Your task to perform on an android device: open device folders in google photos Image 0: 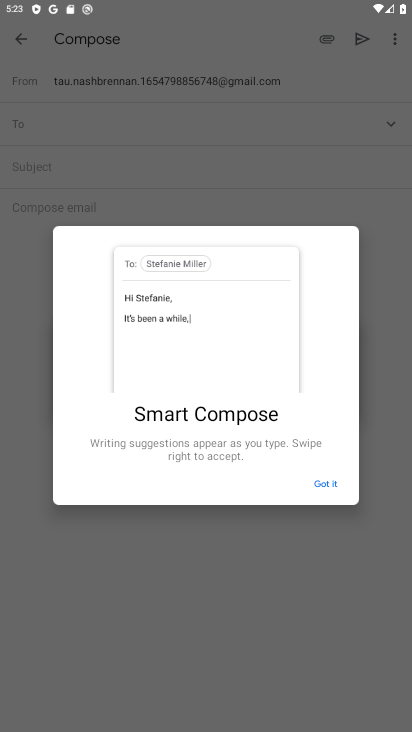
Step 0: press home button
Your task to perform on an android device: open device folders in google photos Image 1: 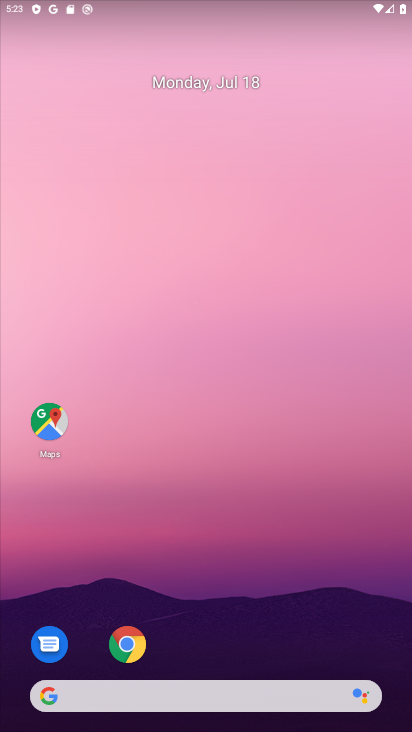
Step 1: drag from (287, 672) to (318, 213)
Your task to perform on an android device: open device folders in google photos Image 2: 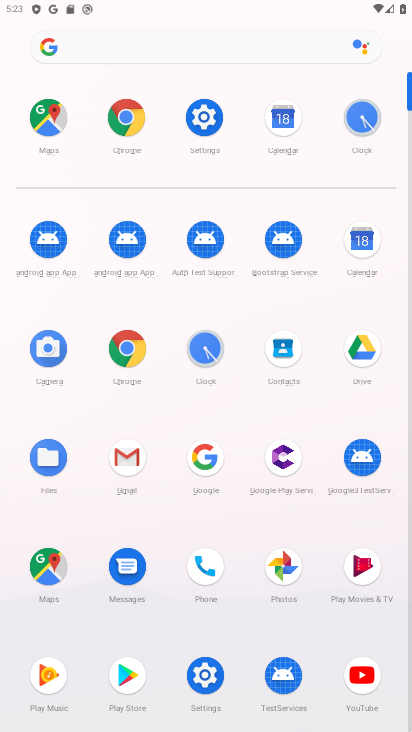
Step 2: click (285, 561)
Your task to perform on an android device: open device folders in google photos Image 3: 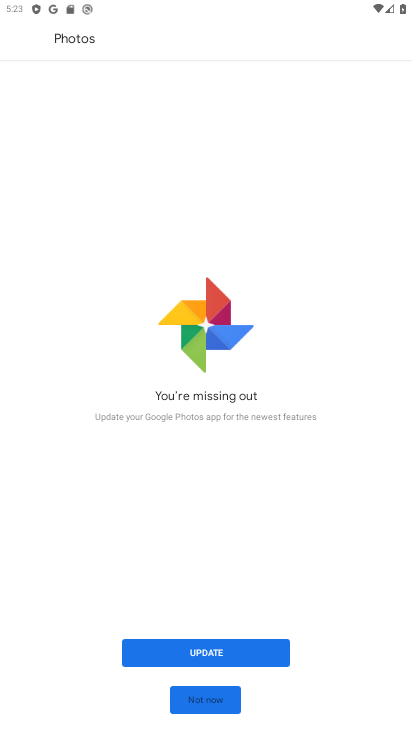
Step 3: click (216, 659)
Your task to perform on an android device: open device folders in google photos Image 4: 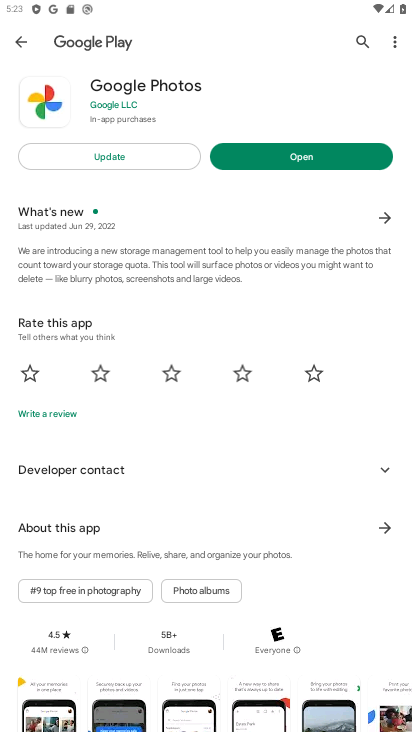
Step 4: click (153, 164)
Your task to perform on an android device: open device folders in google photos Image 5: 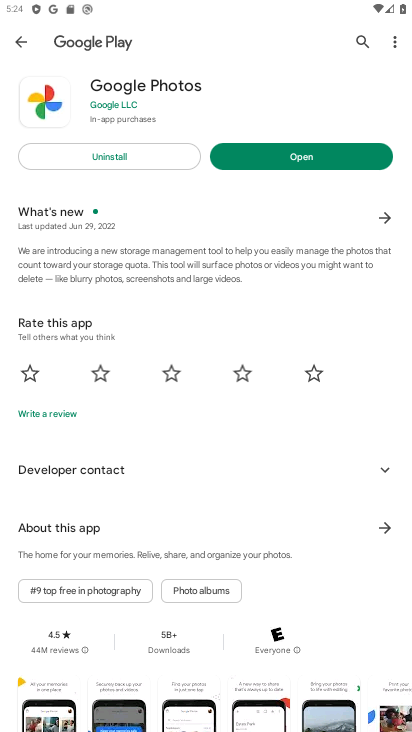
Step 5: click (301, 157)
Your task to perform on an android device: open device folders in google photos Image 6: 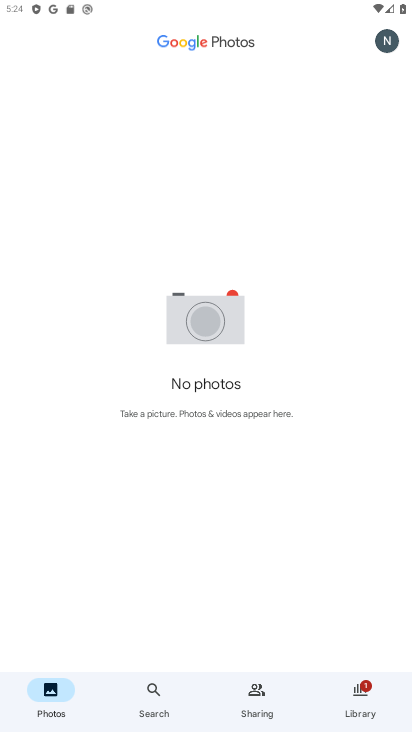
Step 6: click (157, 684)
Your task to perform on an android device: open device folders in google photos Image 7: 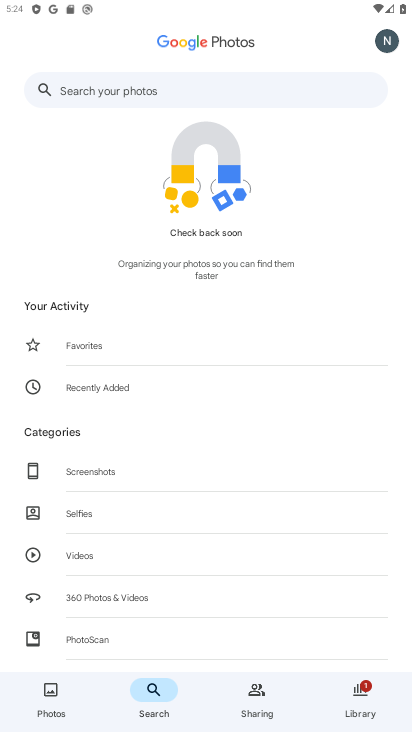
Step 7: click (92, 93)
Your task to perform on an android device: open device folders in google photos Image 8: 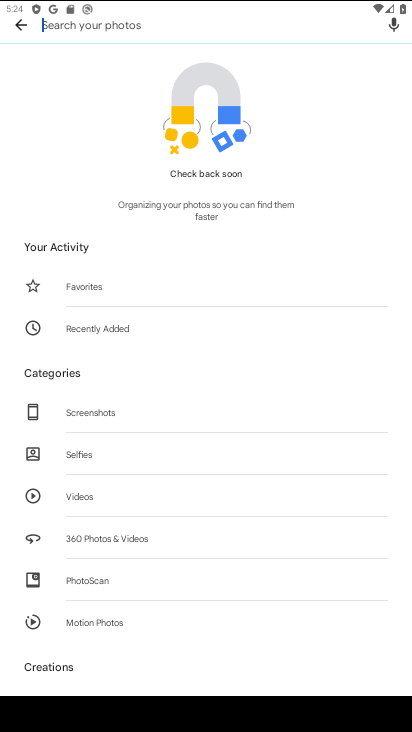
Step 8: type "device folders"
Your task to perform on an android device: open device folders in google photos Image 9: 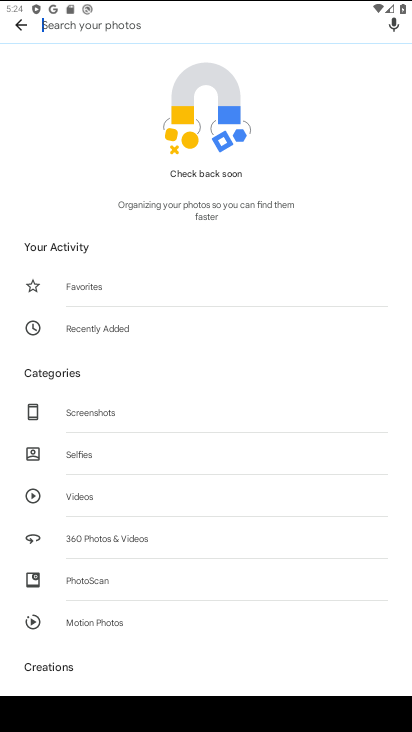
Step 9: click (83, 18)
Your task to perform on an android device: open device folders in google photos Image 10: 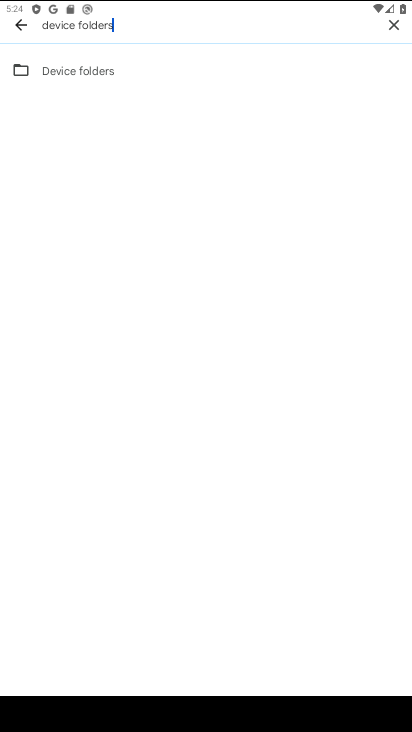
Step 10: click (47, 65)
Your task to perform on an android device: open device folders in google photos Image 11: 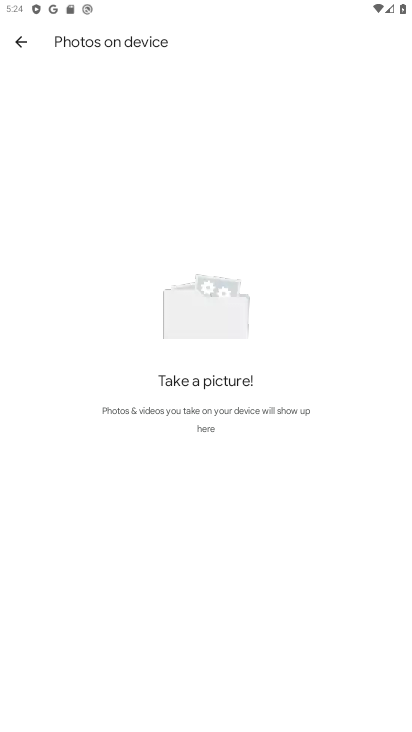
Step 11: task complete